Your task to perform on an android device: Toggle the flashlight Image 0: 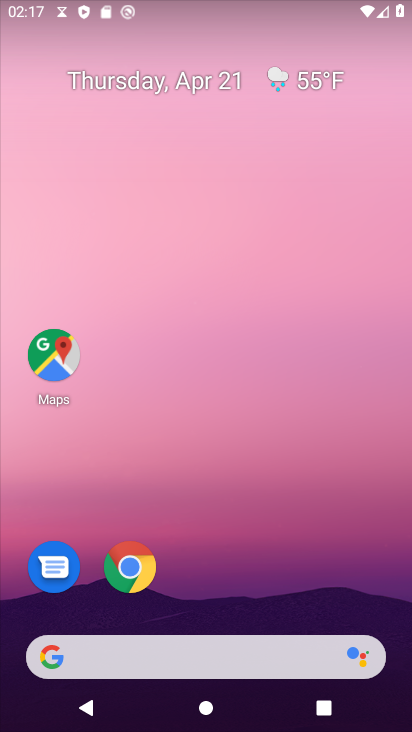
Step 0: drag from (256, 4) to (213, 444)
Your task to perform on an android device: Toggle the flashlight Image 1: 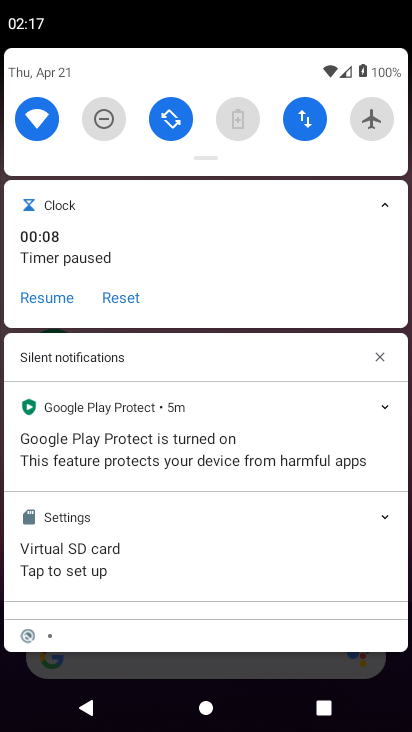
Step 1: task complete